Your task to perform on an android device: snooze an email in the gmail app Image 0: 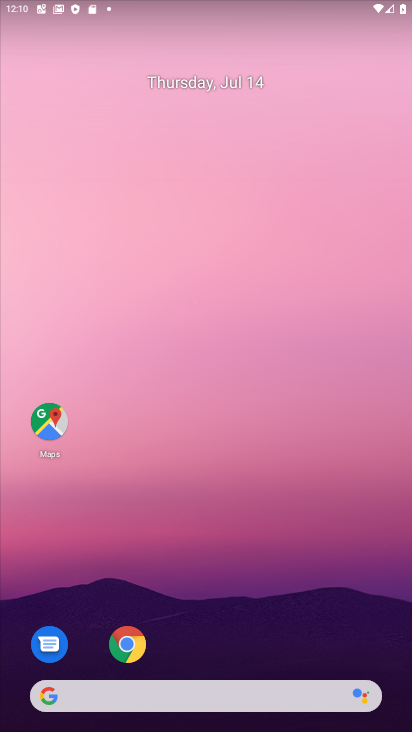
Step 0: drag from (322, 651) to (306, 85)
Your task to perform on an android device: snooze an email in the gmail app Image 1: 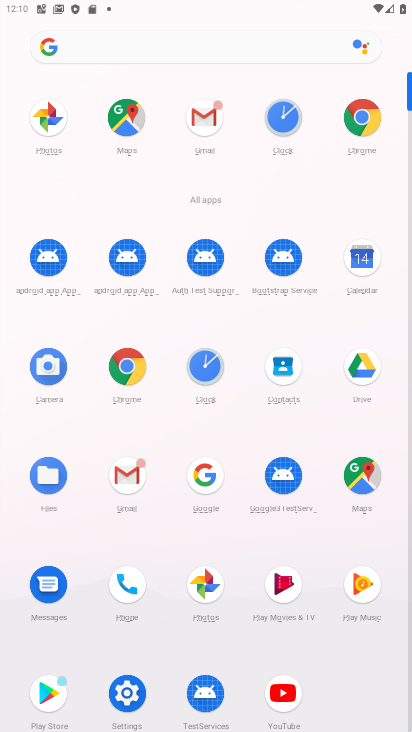
Step 1: click (141, 474)
Your task to perform on an android device: snooze an email in the gmail app Image 2: 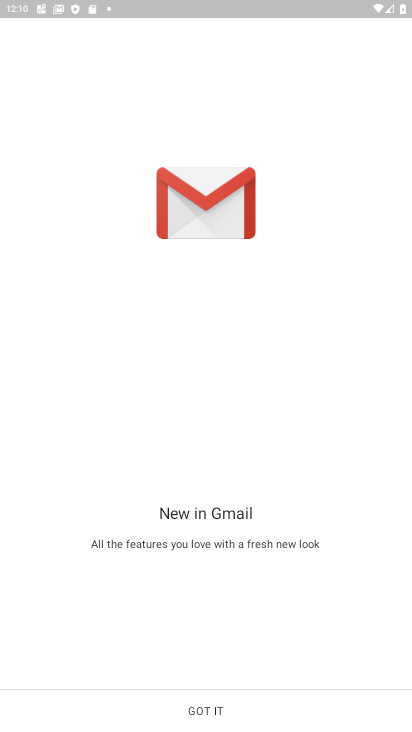
Step 2: click (313, 721)
Your task to perform on an android device: snooze an email in the gmail app Image 3: 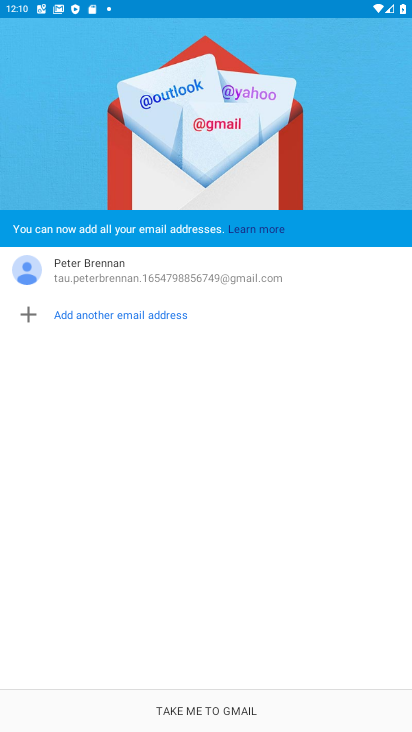
Step 3: click (261, 712)
Your task to perform on an android device: snooze an email in the gmail app Image 4: 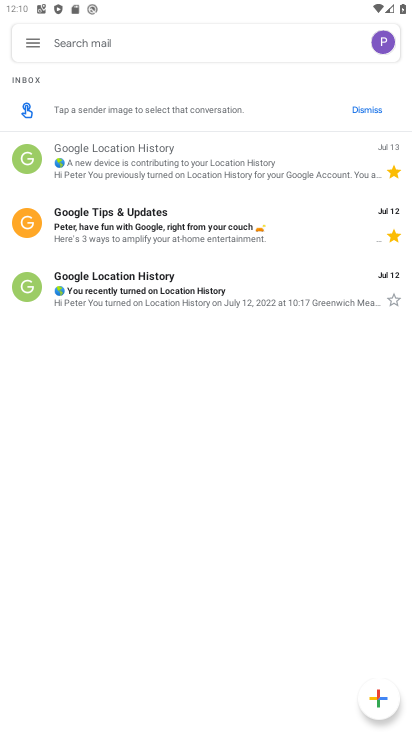
Step 4: click (396, 296)
Your task to perform on an android device: snooze an email in the gmail app Image 5: 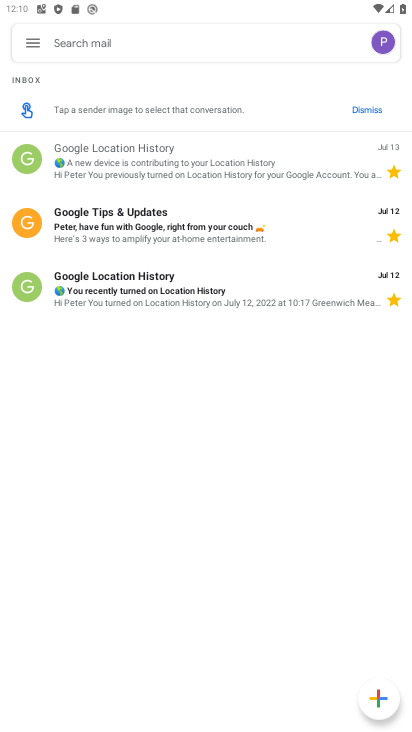
Step 5: task complete